Your task to perform on an android device: check android version Image 0: 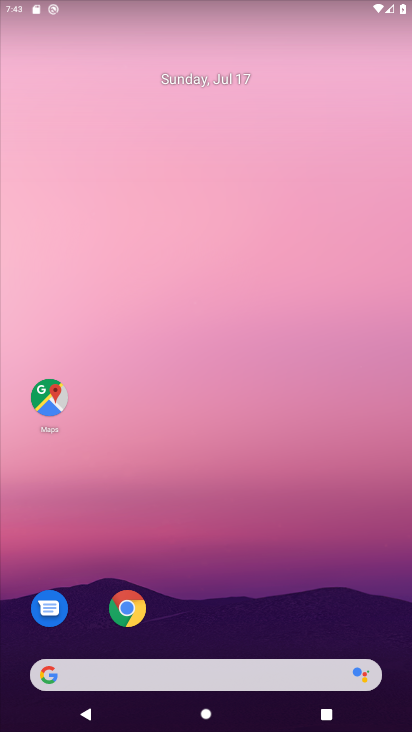
Step 0: drag from (132, 201) to (126, 157)
Your task to perform on an android device: check android version Image 1: 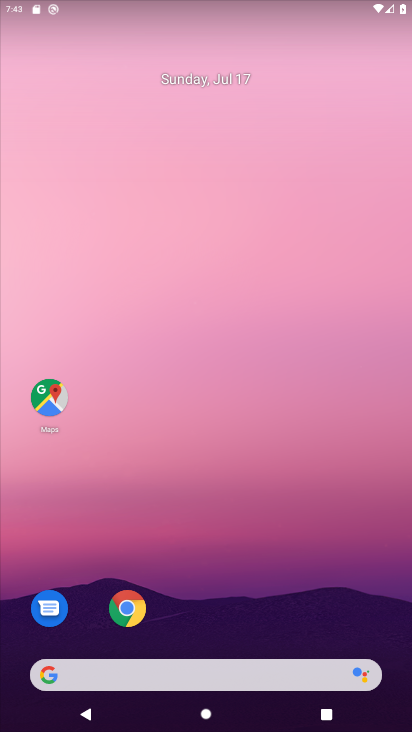
Step 1: drag from (156, 327) to (151, 201)
Your task to perform on an android device: check android version Image 2: 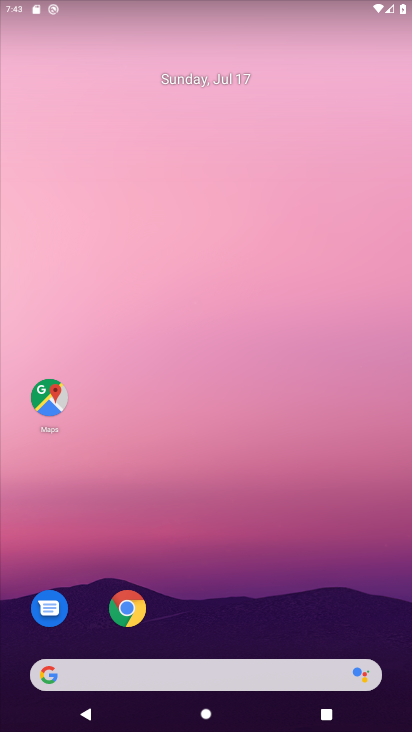
Step 2: drag from (290, 662) to (302, 233)
Your task to perform on an android device: check android version Image 3: 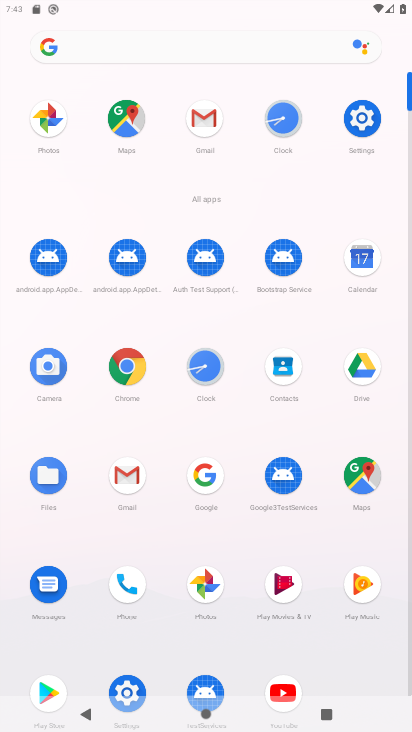
Step 3: drag from (272, 418) to (194, 207)
Your task to perform on an android device: check android version Image 4: 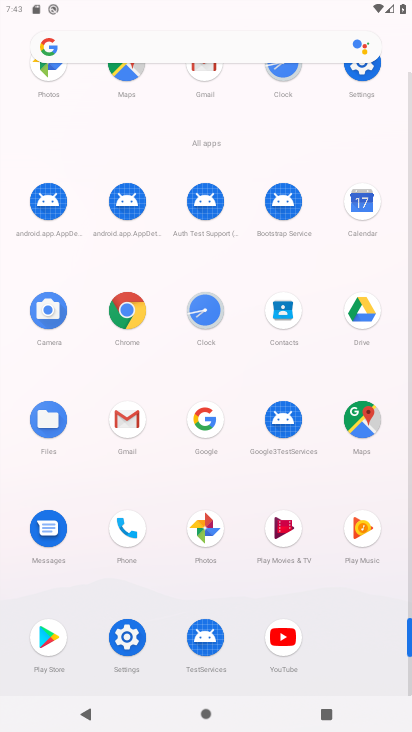
Step 4: click (127, 638)
Your task to perform on an android device: check android version Image 5: 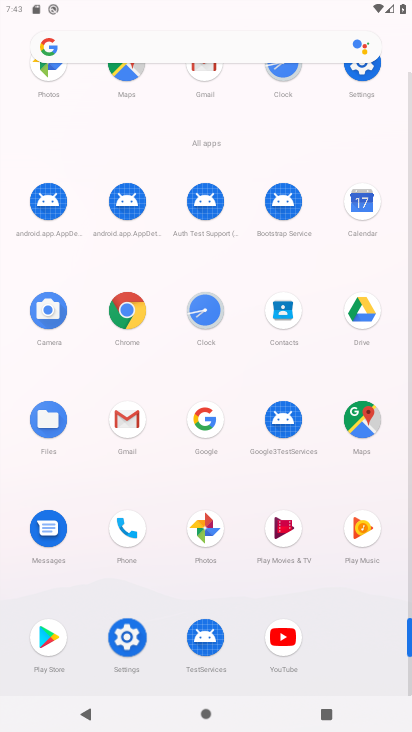
Step 5: click (128, 637)
Your task to perform on an android device: check android version Image 6: 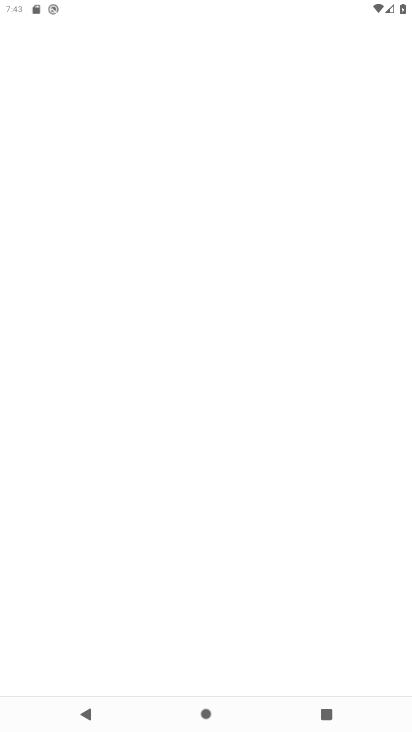
Step 6: click (140, 633)
Your task to perform on an android device: check android version Image 7: 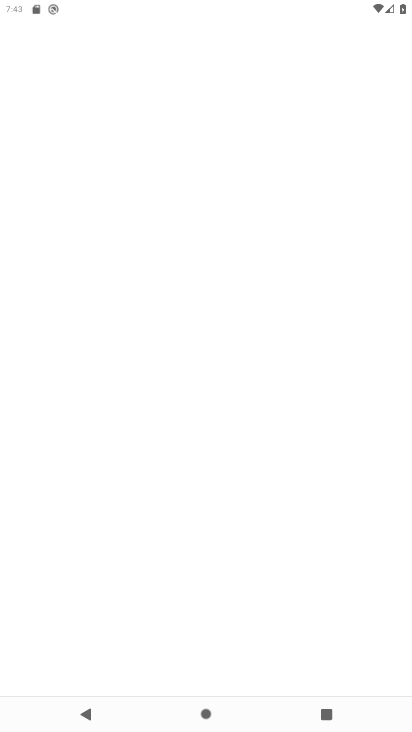
Step 7: click (136, 627)
Your task to perform on an android device: check android version Image 8: 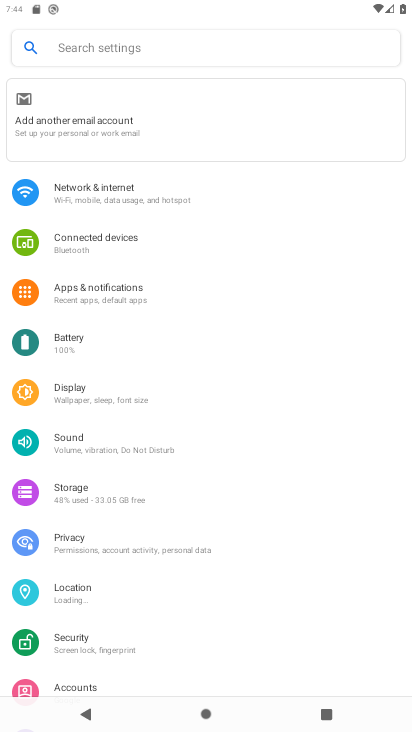
Step 8: drag from (149, 600) to (80, 306)
Your task to perform on an android device: check android version Image 9: 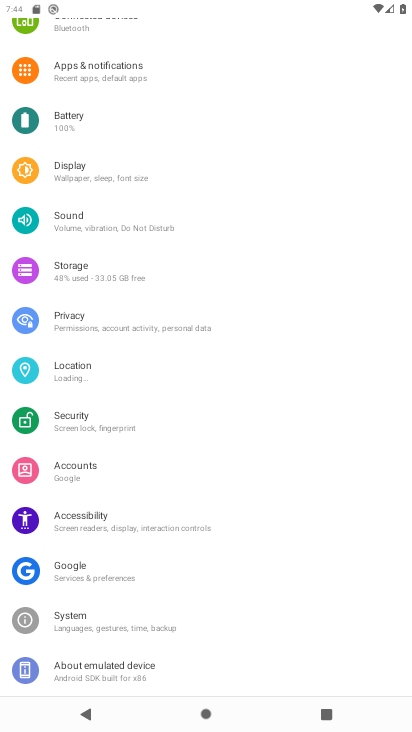
Step 9: drag from (79, 521) to (34, 104)
Your task to perform on an android device: check android version Image 10: 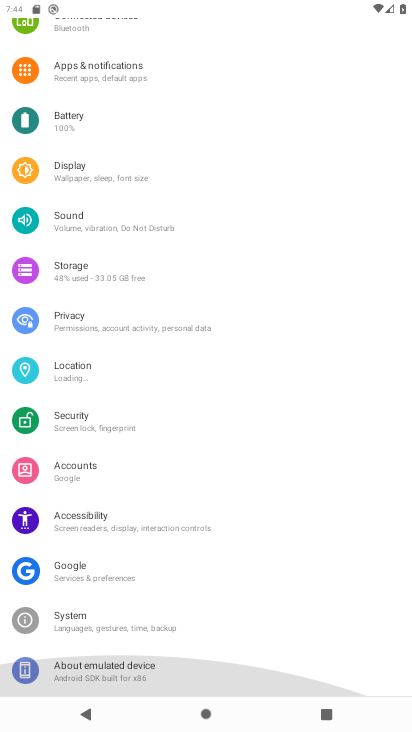
Step 10: drag from (175, 628) to (152, 160)
Your task to perform on an android device: check android version Image 11: 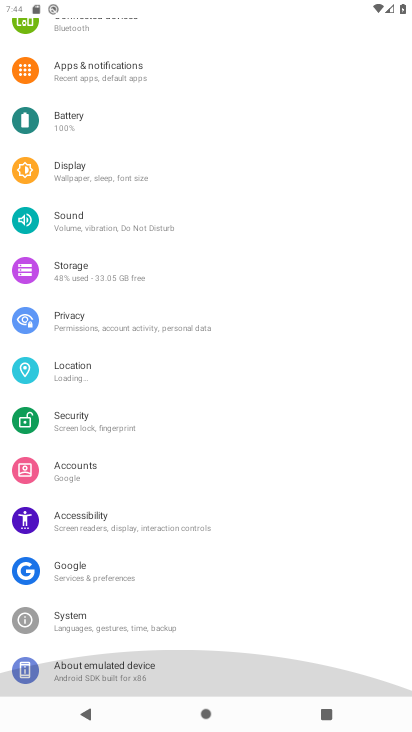
Step 11: click (68, 567)
Your task to perform on an android device: check android version Image 12: 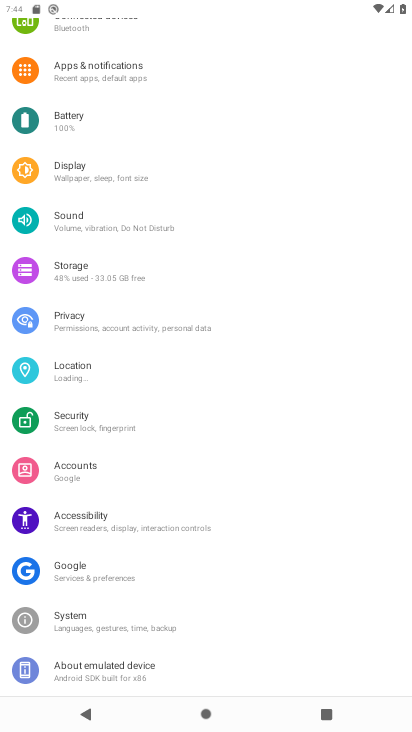
Step 12: click (88, 665)
Your task to perform on an android device: check android version Image 13: 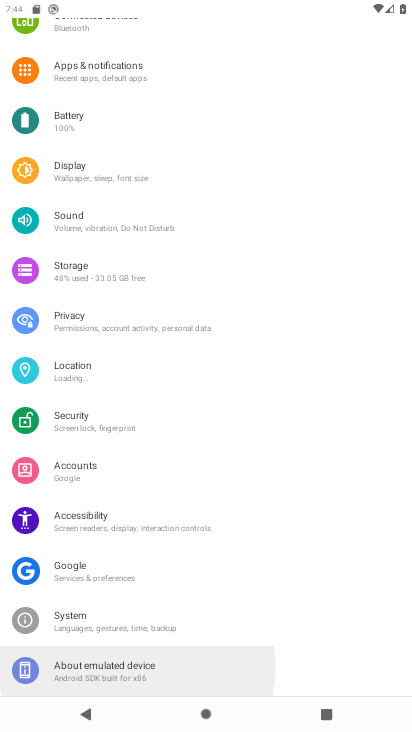
Step 13: click (89, 666)
Your task to perform on an android device: check android version Image 14: 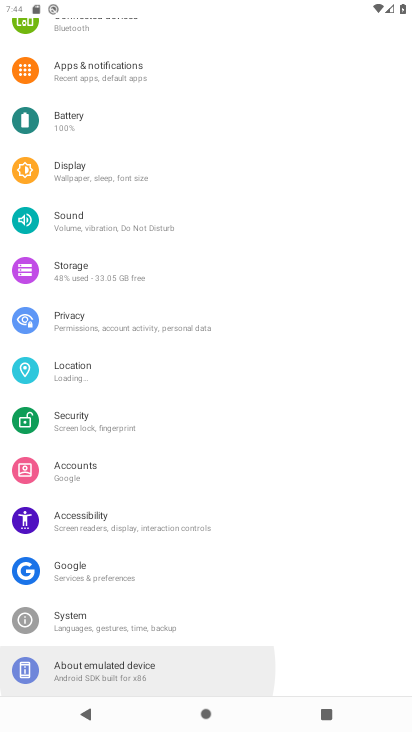
Step 14: click (90, 666)
Your task to perform on an android device: check android version Image 15: 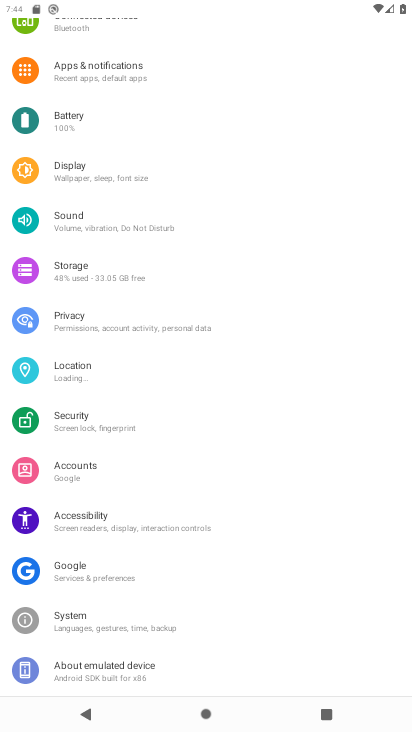
Step 15: click (105, 669)
Your task to perform on an android device: check android version Image 16: 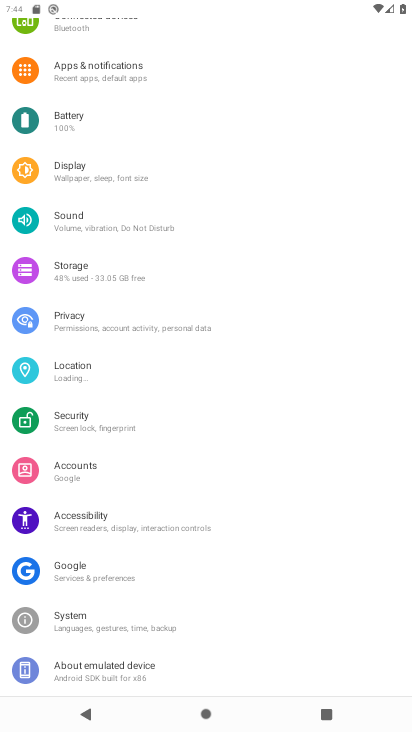
Step 16: click (116, 670)
Your task to perform on an android device: check android version Image 17: 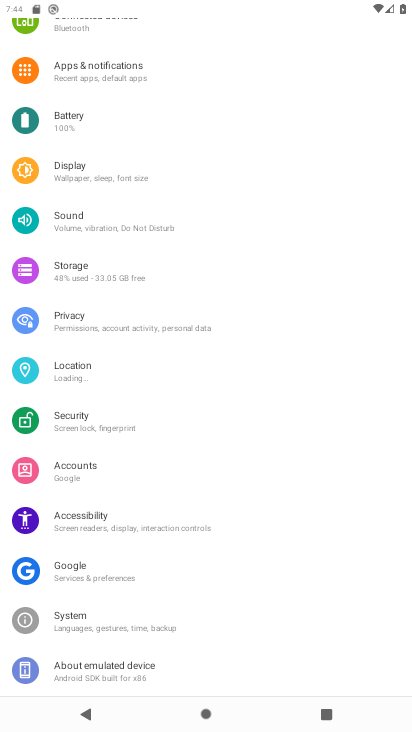
Step 17: click (116, 670)
Your task to perform on an android device: check android version Image 18: 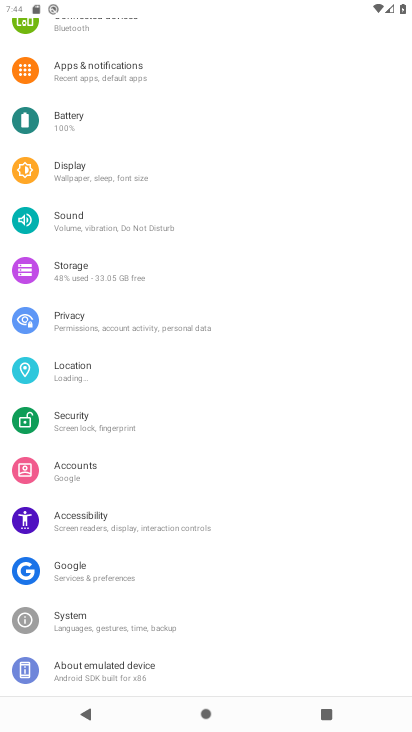
Step 18: click (113, 667)
Your task to perform on an android device: check android version Image 19: 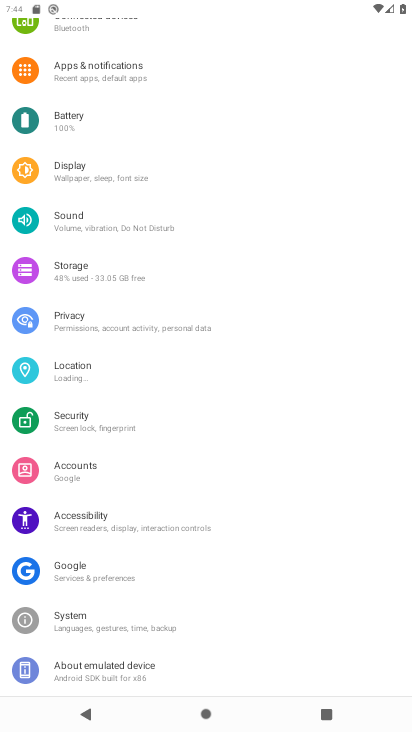
Step 19: click (118, 664)
Your task to perform on an android device: check android version Image 20: 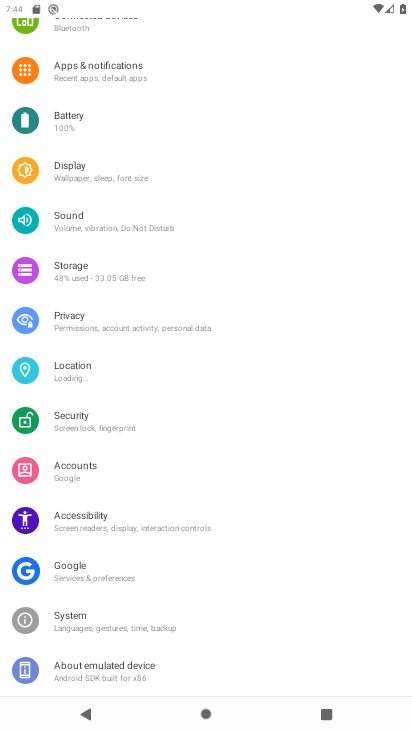
Step 20: click (114, 666)
Your task to perform on an android device: check android version Image 21: 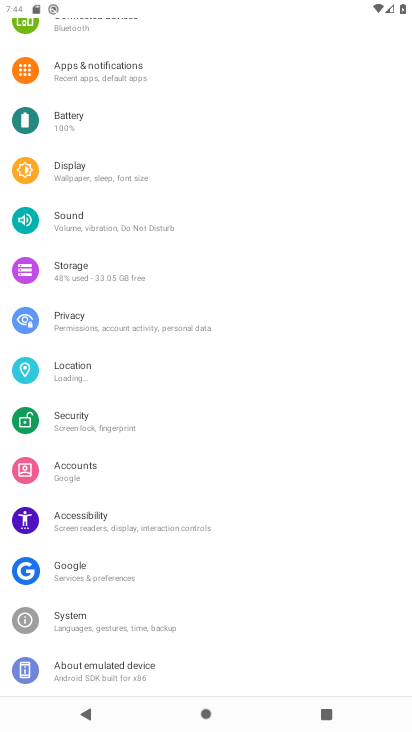
Step 21: click (144, 660)
Your task to perform on an android device: check android version Image 22: 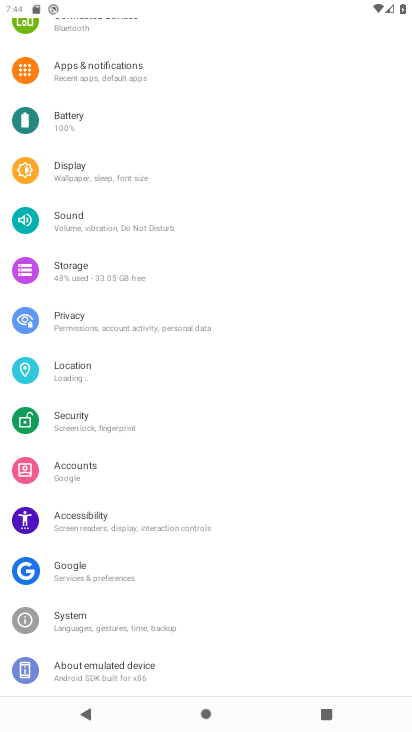
Step 22: click (148, 660)
Your task to perform on an android device: check android version Image 23: 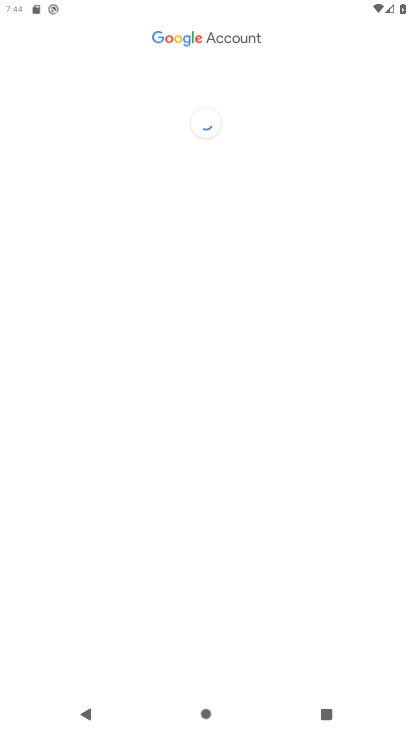
Step 23: click (119, 666)
Your task to perform on an android device: check android version Image 24: 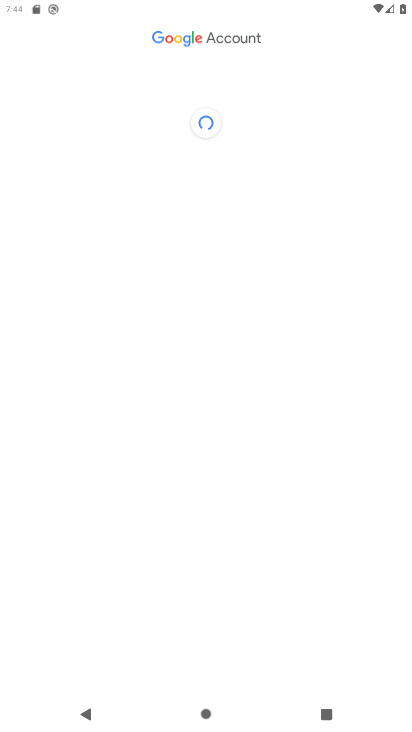
Step 24: click (114, 660)
Your task to perform on an android device: check android version Image 25: 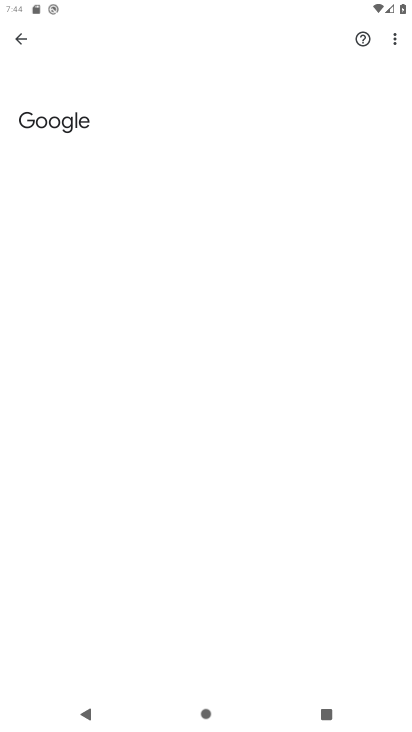
Step 25: task complete